Your task to perform on an android device: turn on wifi Image 0: 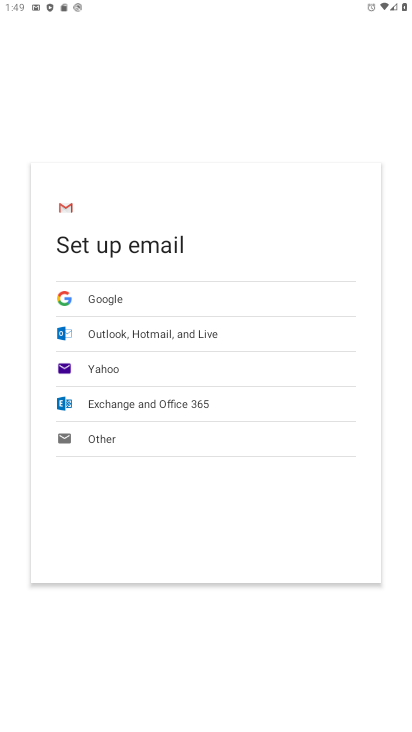
Step 0: press home button
Your task to perform on an android device: turn on wifi Image 1: 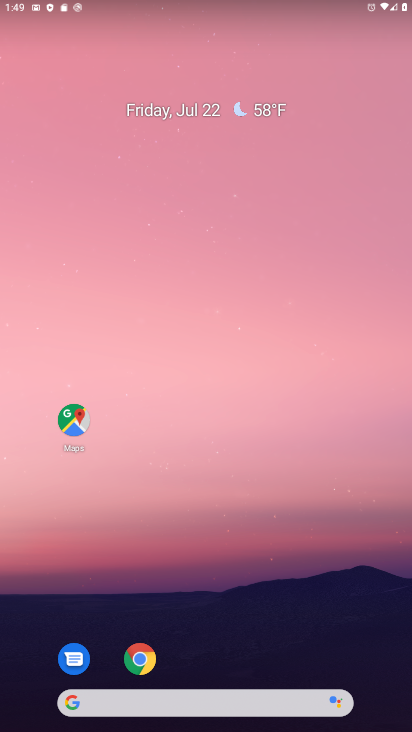
Step 1: drag from (216, 689) to (149, 132)
Your task to perform on an android device: turn on wifi Image 2: 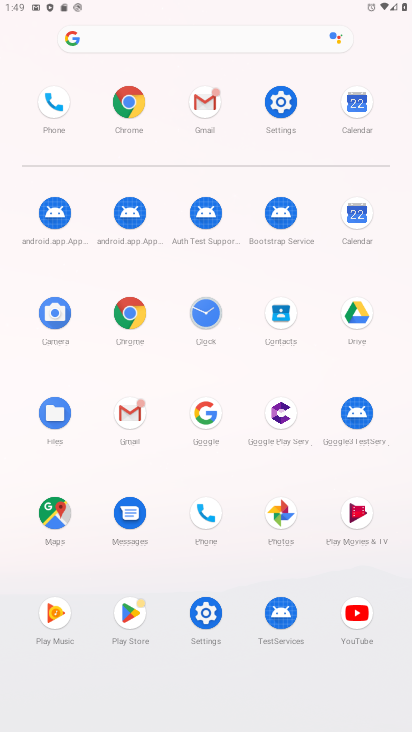
Step 2: click (277, 85)
Your task to perform on an android device: turn on wifi Image 3: 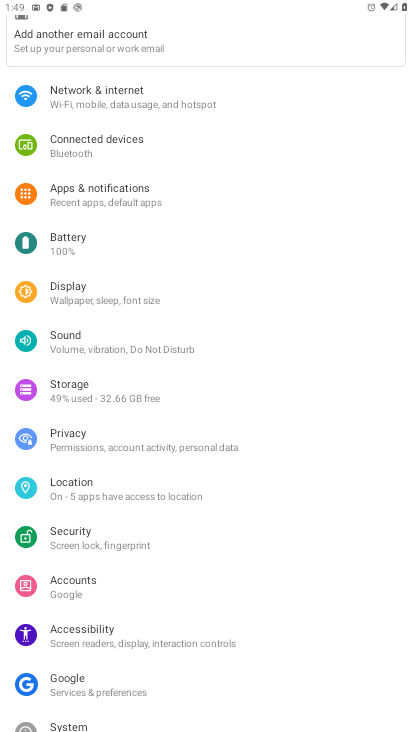
Step 3: click (99, 98)
Your task to perform on an android device: turn on wifi Image 4: 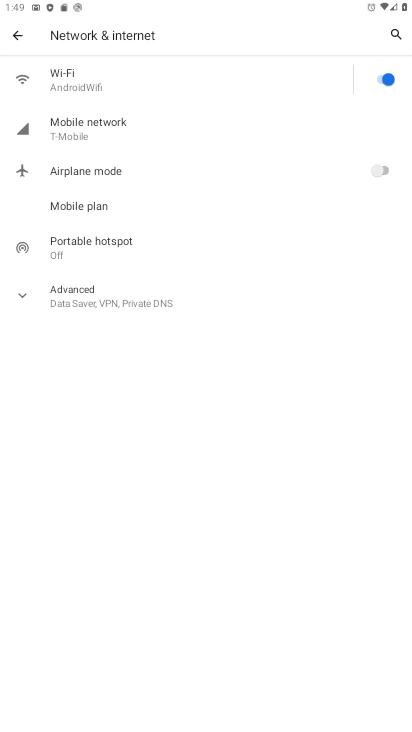
Step 4: click (298, 85)
Your task to perform on an android device: turn on wifi Image 5: 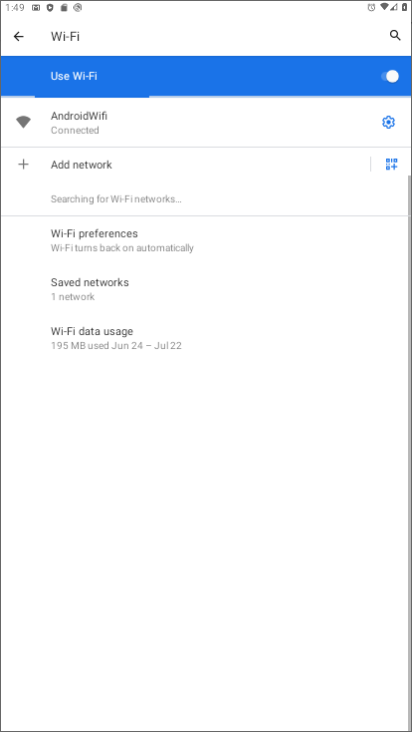
Step 5: task complete